Your task to perform on an android device: When is my next meeting? Image 0: 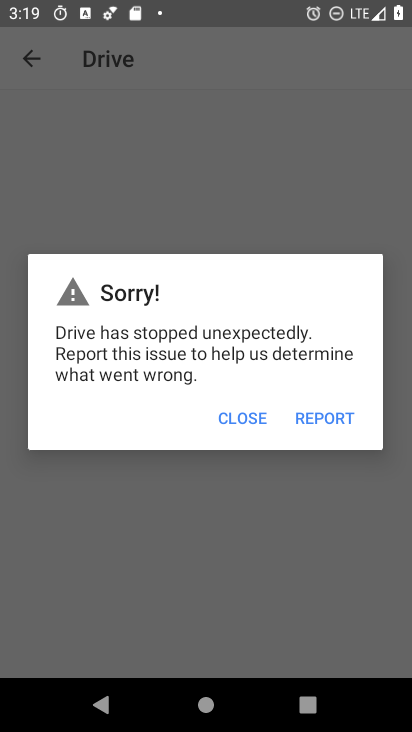
Step 0: press home button
Your task to perform on an android device: When is my next meeting? Image 1: 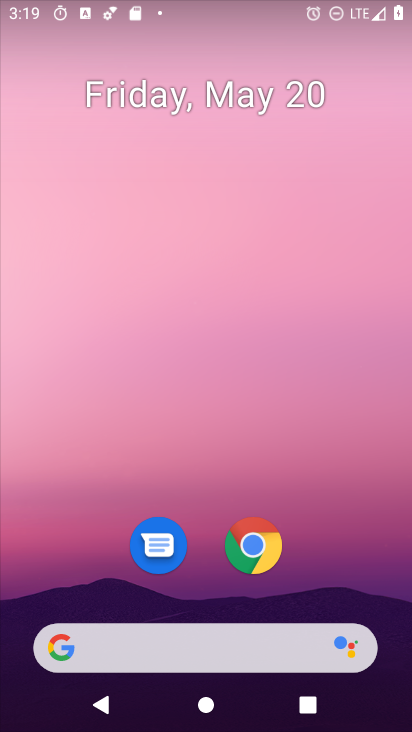
Step 1: drag from (337, 632) to (351, 0)
Your task to perform on an android device: When is my next meeting? Image 2: 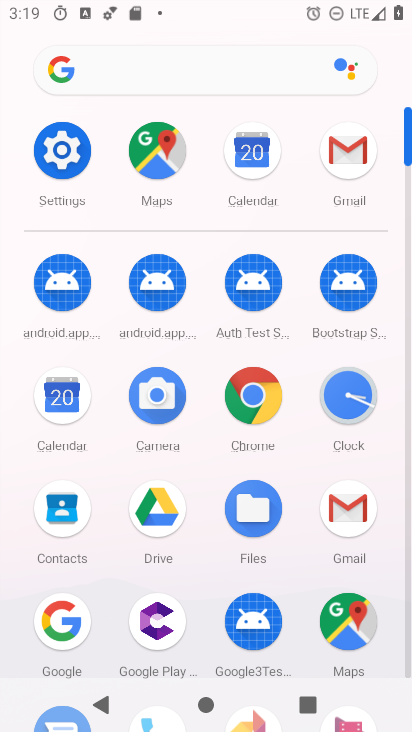
Step 2: click (54, 405)
Your task to perform on an android device: When is my next meeting? Image 3: 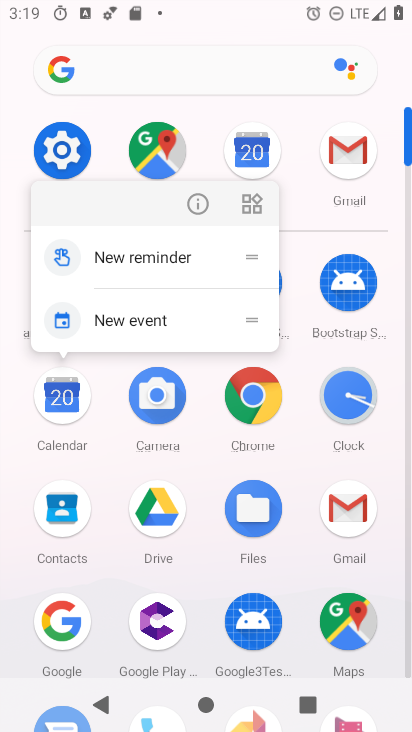
Step 3: click (54, 405)
Your task to perform on an android device: When is my next meeting? Image 4: 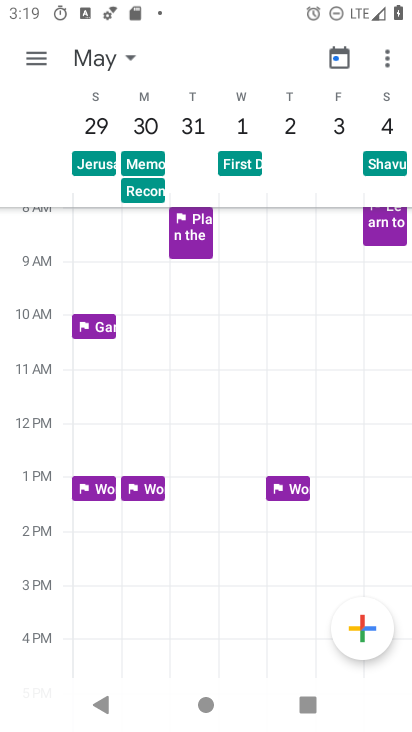
Step 4: click (125, 55)
Your task to perform on an android device: When is my next meeting? Image 5: 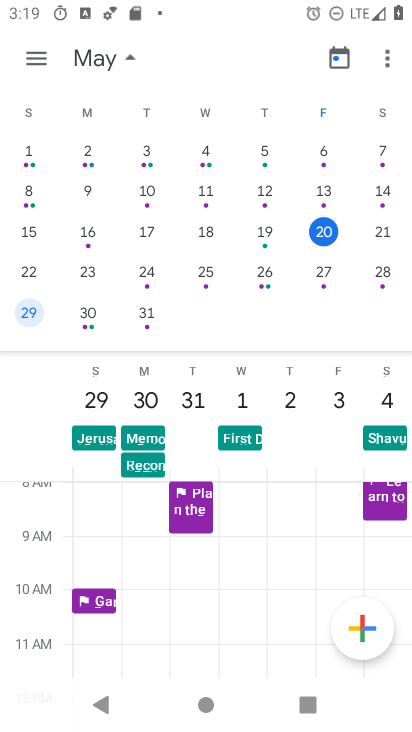
Step 5: click (314, 232)
Your task to perform on an android device: When is my next meeting? Image 6: 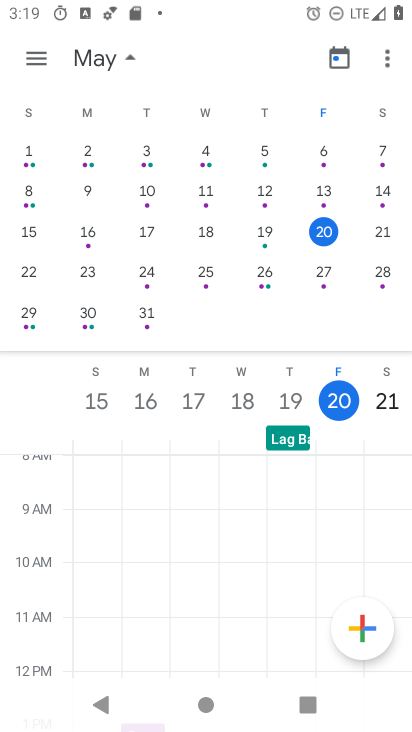
Step 6: task complete